Your task to perform on an android device: Go to display settings Image 0: 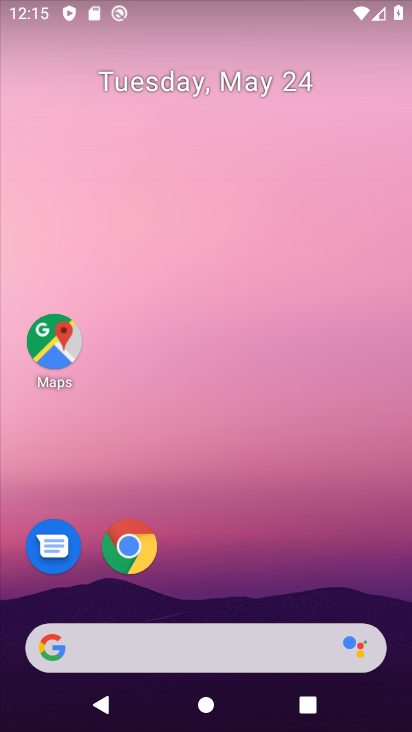
Step 0: drag from (130, 673) to (192, 75)
Your task to perform on an android device: Go to display settings Image 1: 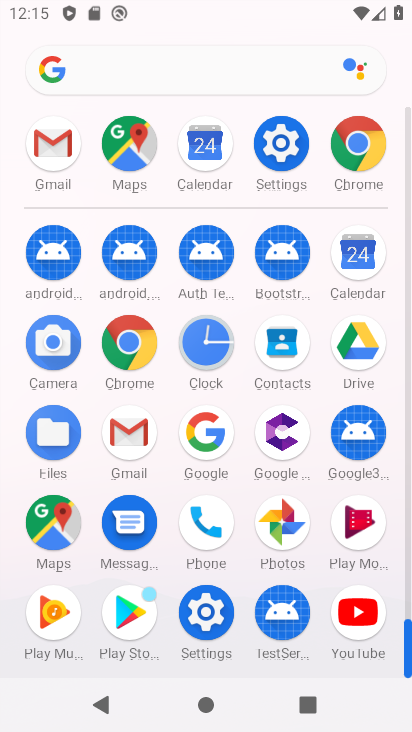
Step 1: click (291, 152)
Your task to perform on an android device: Go to display settings Image 2: 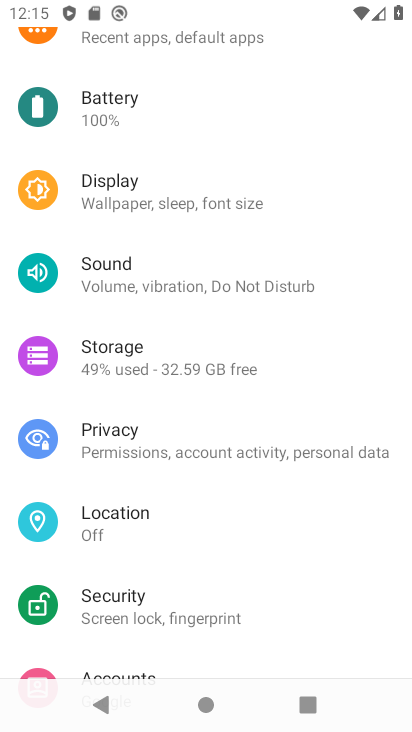
Step 2: click (188, 199)
Your task to perform on an android device: Go to display settings Image 3: 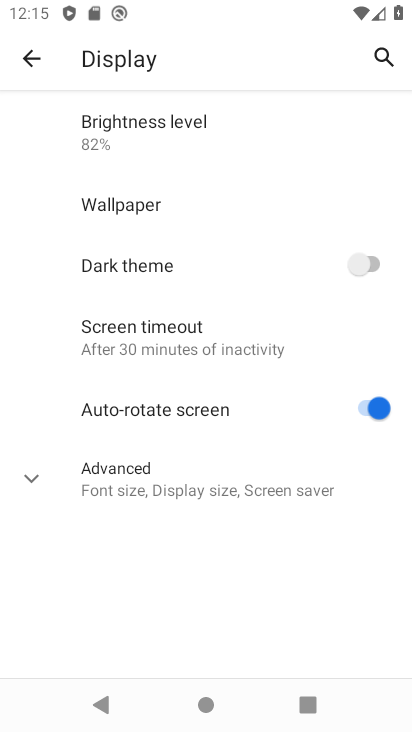
Step 3: task complete